Your task to perform on an android device: check storage Image 0: 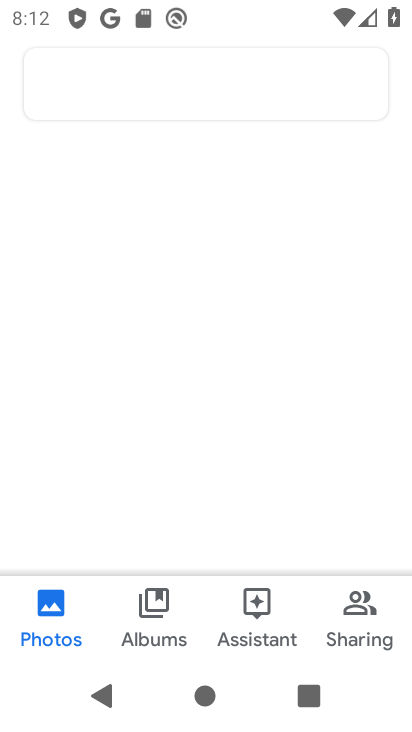
Step 0: press back button
Your task to perform on an android device: check storage Image 1: 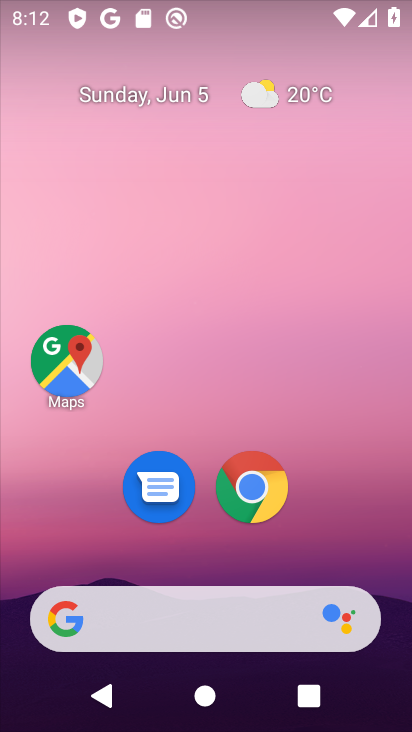
Step 1: drag from (195, 577) to (266, 53)
Your task to perform on an android device: check storage Image 2: 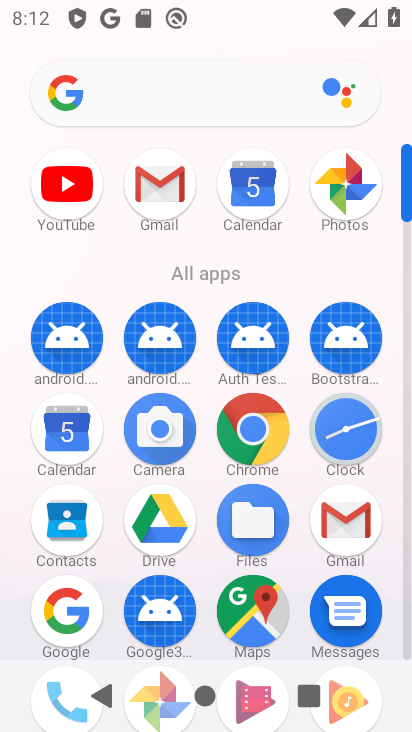
Step 2: drag from (221, 557) to (319, 53)
Your task to perform on an android device: check storage Image 3: 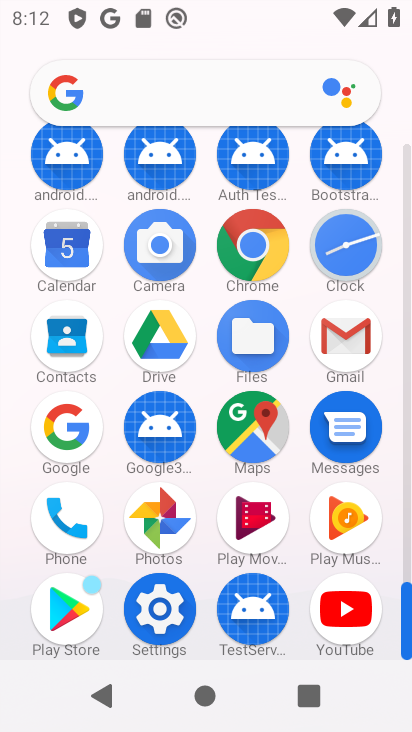
Step 3: click (155, 615)
Your task to perform on an android device: check storage Image 4: 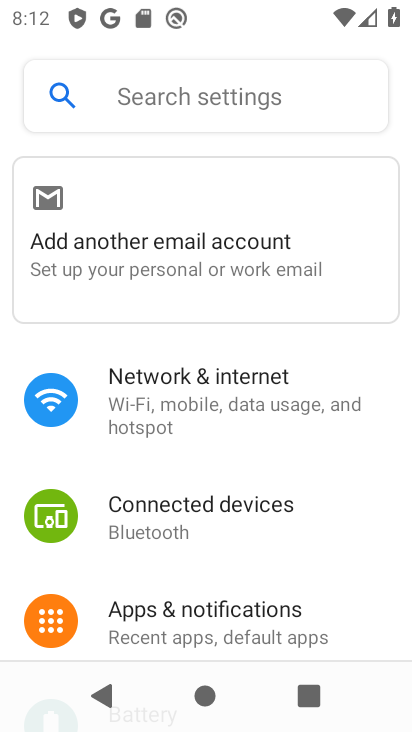
Step 4: drag from (185, 644) to (263, 75)
Your task to perform on an android device: check storage Image 5: 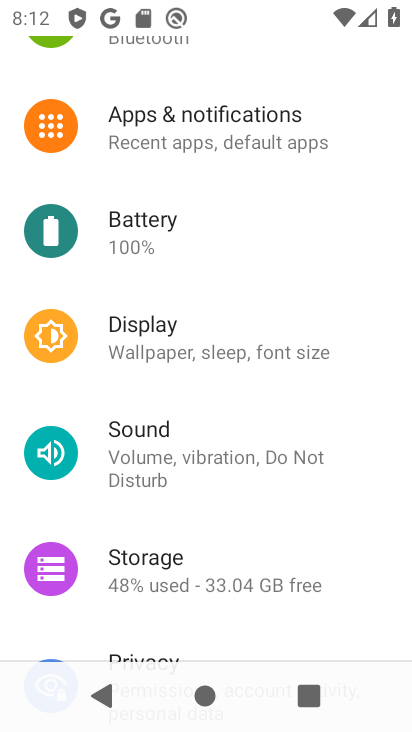
Step 5: click (188, 575)
Your task to perform on an android device: check storage Image 6: 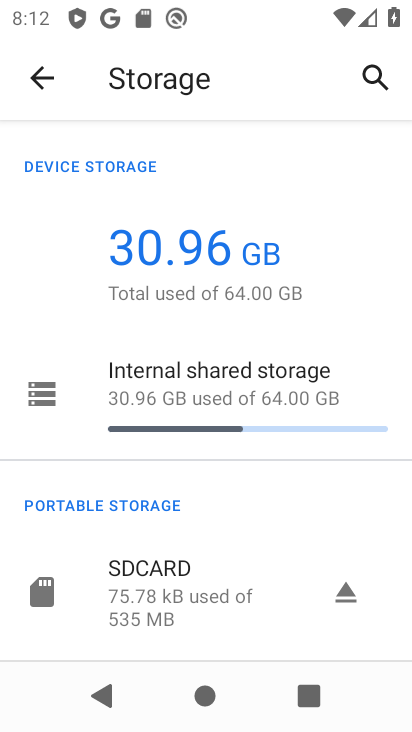
Step 6: task complete